Your task to perform on an android device: toggle notifications settings in the gmail app Image 0: 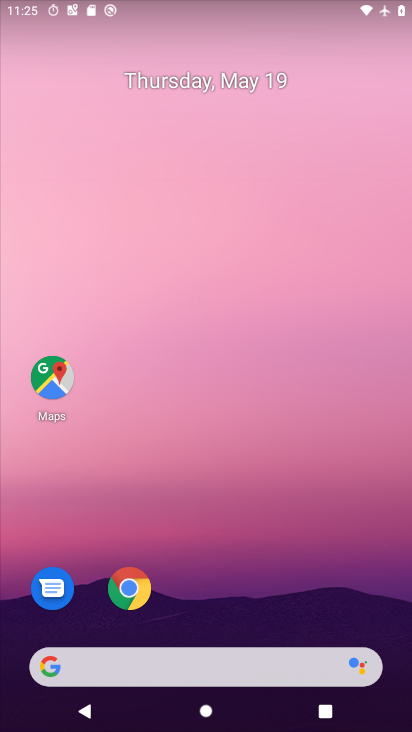
Step 0: press home button
Your task to perform on an android device: toggle notifications settings in the gmail app Image 1: 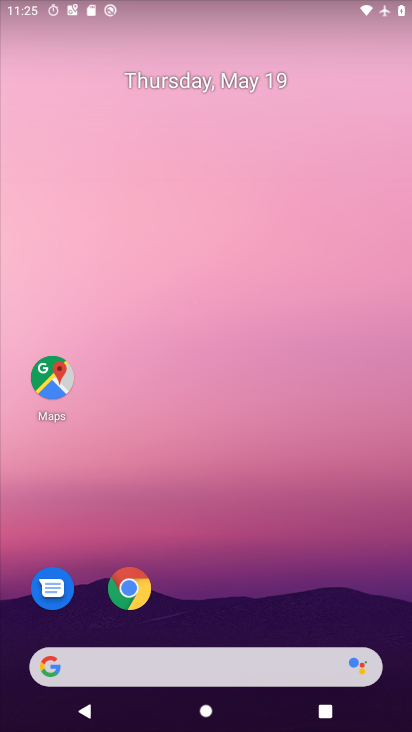
Step 1: drag from (152, 671) to (231, 184)
Your task to perform on an android device: toggle notifications settings in the gmail app Image 2: 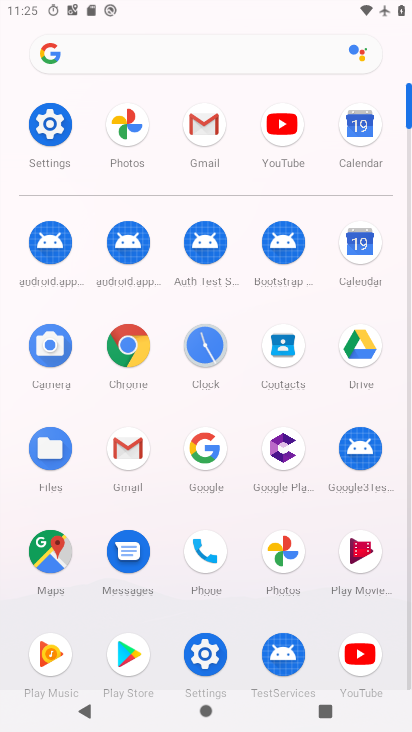
Step 2: click (207, 142)
Your task to perform on an android device: toggle notifications settings in the gmail app Image 3: 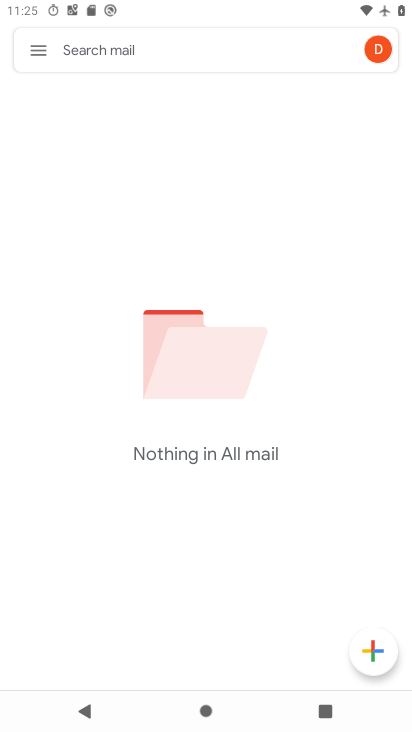
Step 3: click (36, 54)
Your task to perform on an android device: toggle notifications settings in the gmail app Image 4: 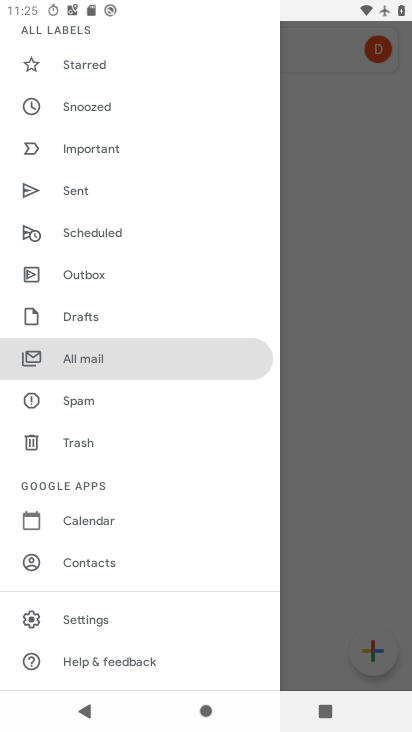
Step 4: click (99, 617)
Your task to perform on an android device: toggle notifications settings in the gmail app Image 5: 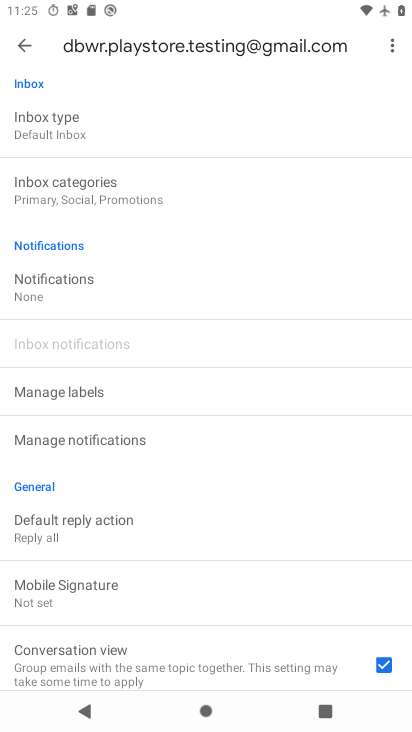
Step 5: click (67, 289)
Your task to perform on an android device: toggle notifications settings in the gmail app Image 6: 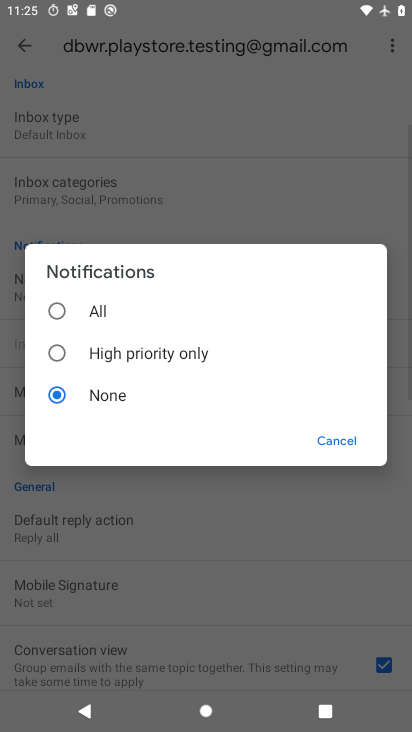
Step 6: click (58, 307)
Your task to perform on an android device: toggle notifications settings in the gmail app Image 7: 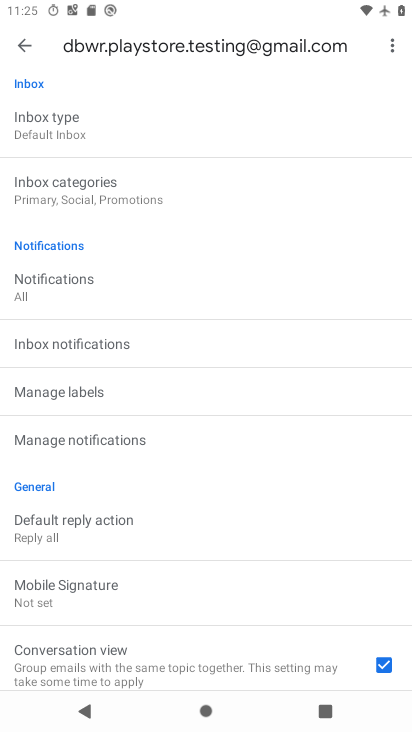
Step 7: task complete